Your task to perform on an android device: Go to display settings Image 0: 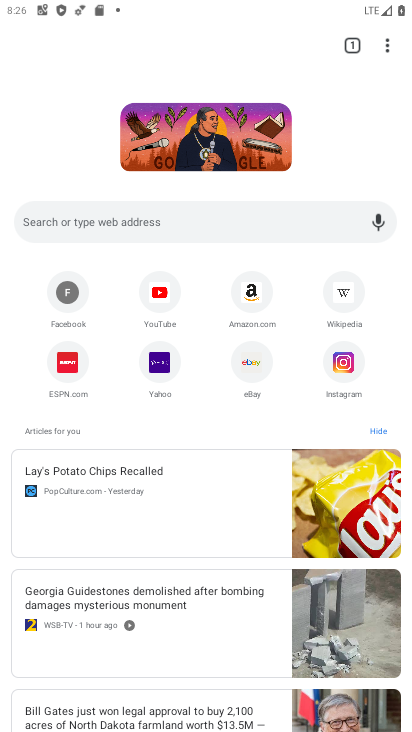
Step 0: click (175, 221)
Your task to perform on an android device: Go to display settings Image 1: 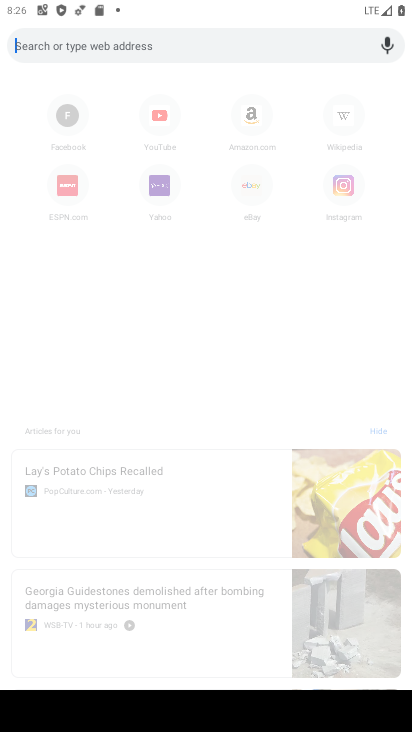
Step 1: press home button
Your task to perform on an android device: Go to display settings Image 2: 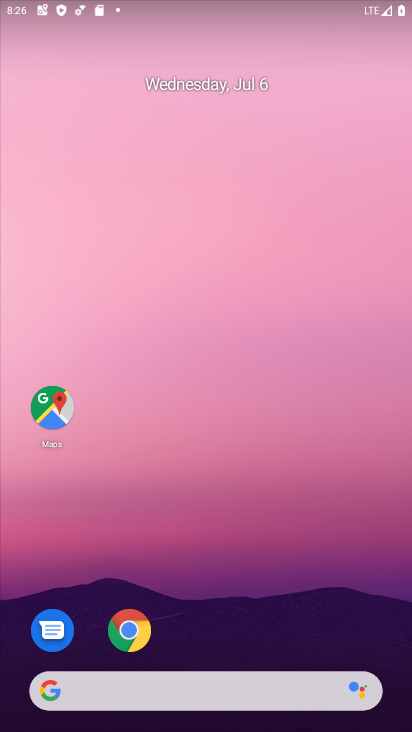
Step 2: drag from (385, 672) to (368, 225)
Your task to perform on an android device: Go to display settings Image 3: 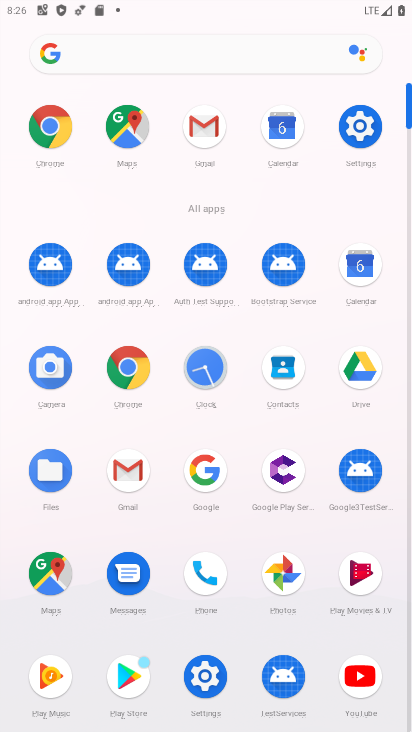
Step 3: click (362, 122)
Your task to perform on an android device: Go to display settings Image 4: 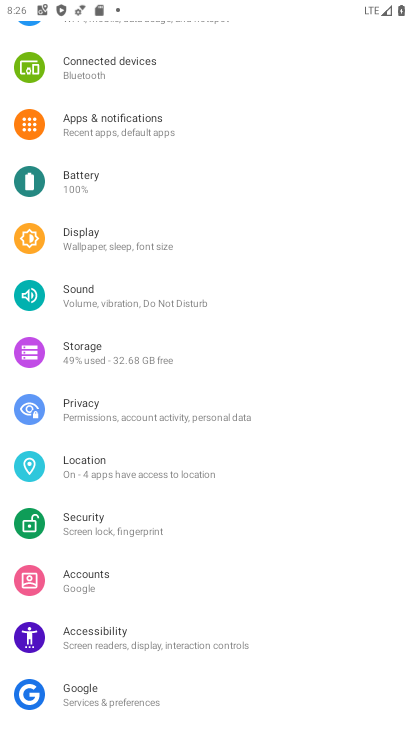
Step 4: click (106, 238)
Your task to perform on an android device: Go to display settings Image 5: 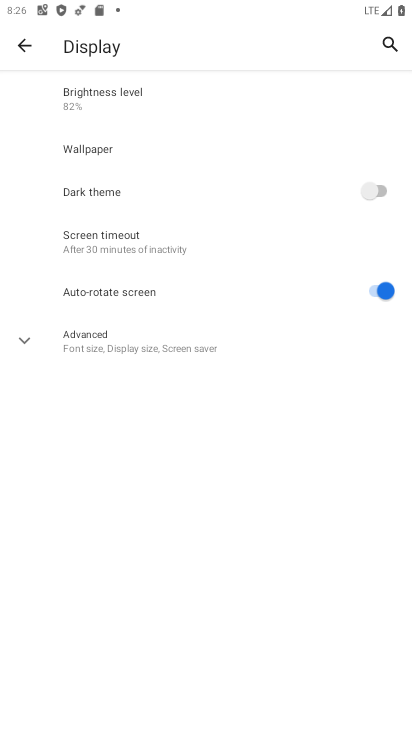
Step 5: click (13, 337)
Your task to perform on an android device: Go to display settings Image 6: 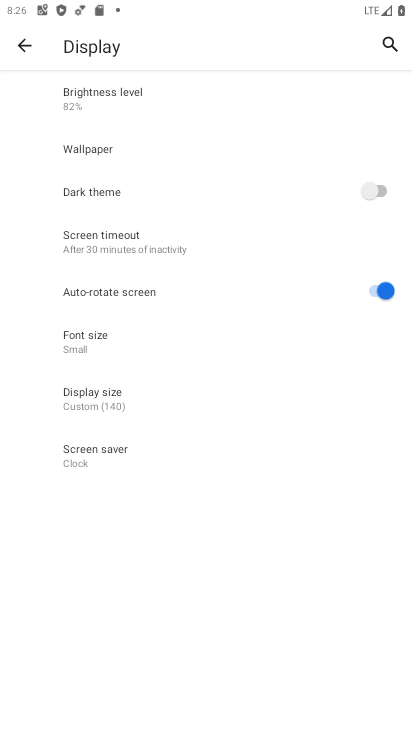
Step 6: task complete